Your task to perform on an android device: Open accessibility settings Image 0: 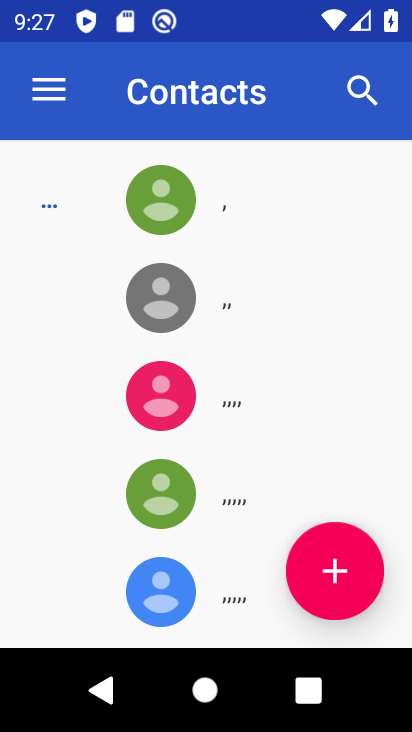
Step 0: press home button
Your task to perform on an android device: Open accessibility settings Image 1: 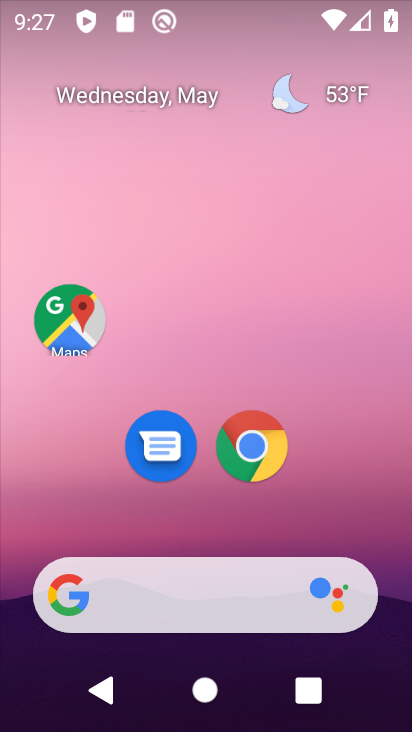
Step 1: drag from (340, 503) to (330, 166)
Your task to perform on an android device: Open accessibility settings Image 2: 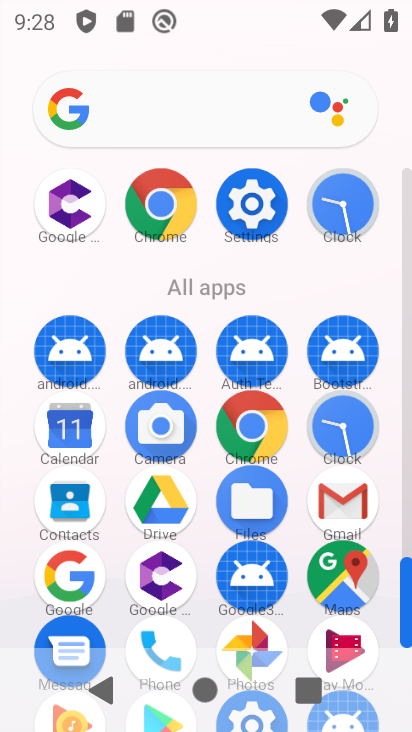
Step 2: click (259, 206)
Your task to perform on an android device: Open accessibility settings Image 3: 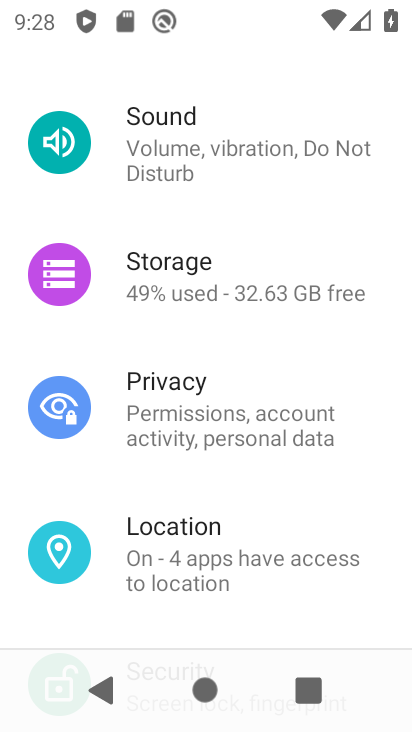
Step 3: drag from (322, 558) to (273, 307)
Your task to perform on an android device: Open accessibility settings Image 4: 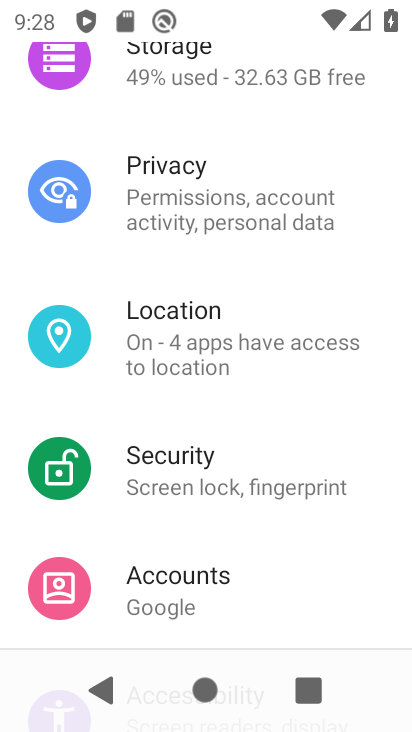
Step 4: drag from (272, 544) to (250, 311)
Your task to perform on an android device: Open accessibility settings Image 5: 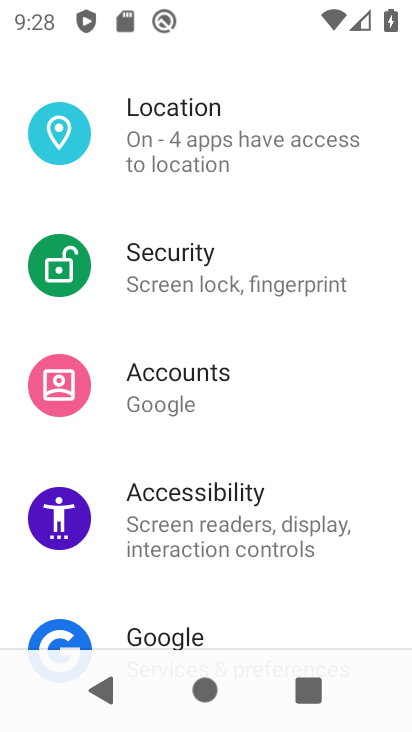
Step 5: click (254, 496)
Your task to perform on an android device: Open accessibility settings Image 6: 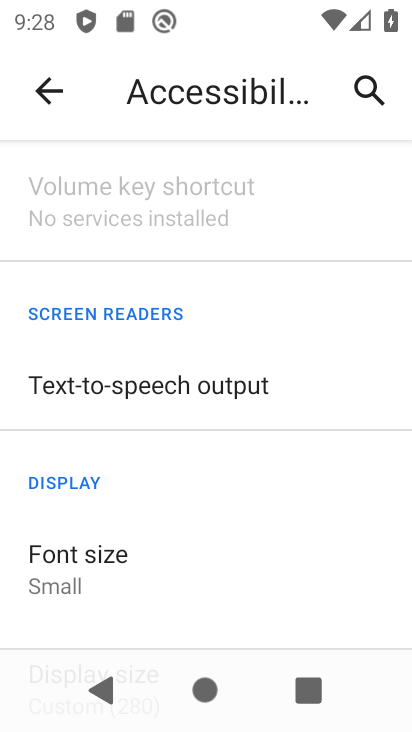
Step 6: task complete